Your task to perform on an android device: Open the map Image 0: 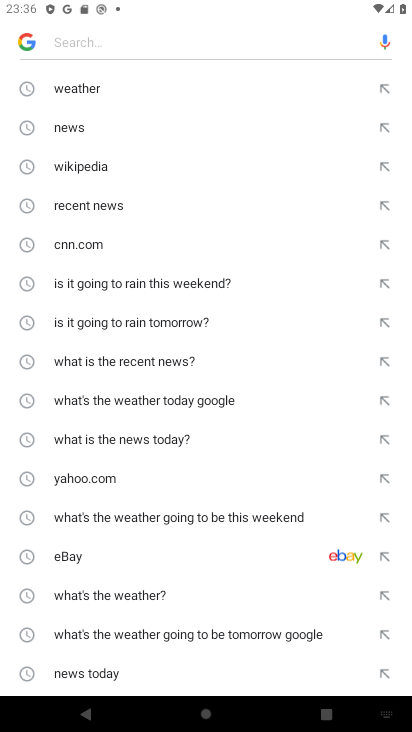
Step 0: press home button
Your task to perform on an android device: Open the map Image 1: 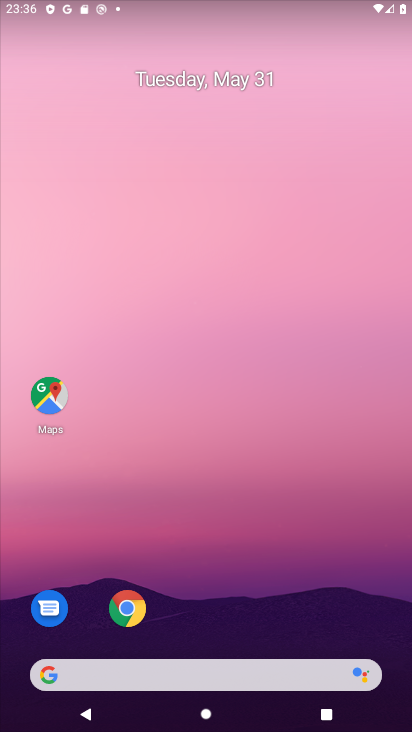
Step 1: click (59, 408)
Your task to perform on an android device: Open the map Image 2: 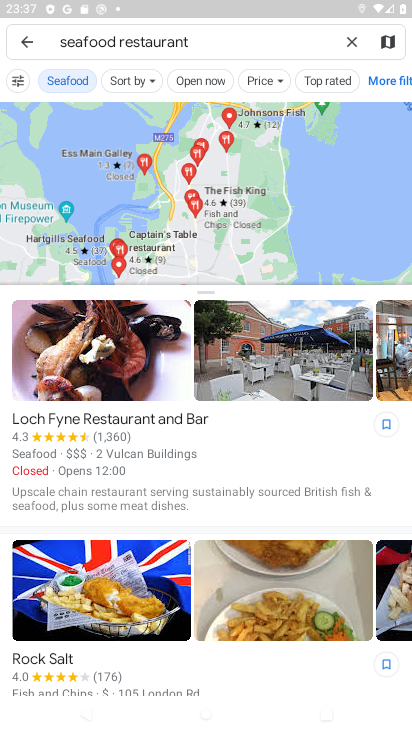
Step 2: task complete